Your task to perform on an android device: Go to Android settings Image 0: 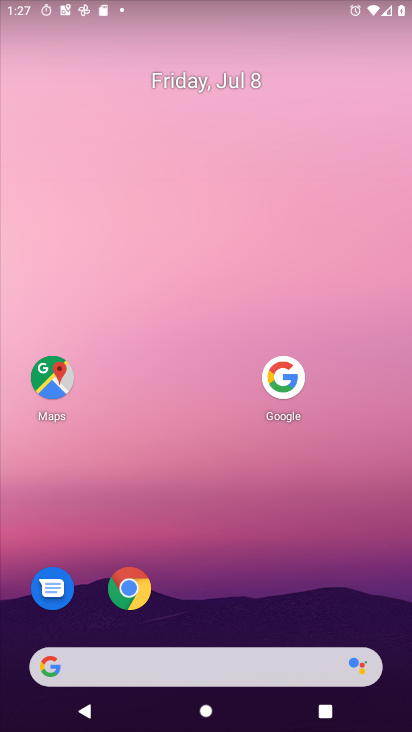
Step 0: drag from (165, 656) to (204, 20)
Your task to perform on an android device: Go to Android settings Image 1: 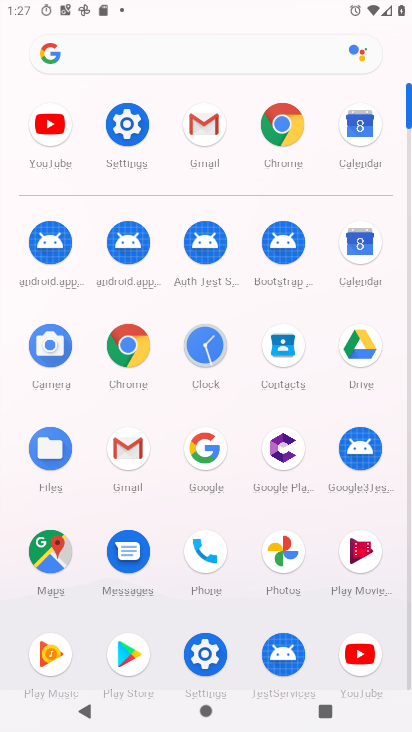
Step 1: click (127, 130)
Your task to perform on an android device: Go to Android settings Image 2: 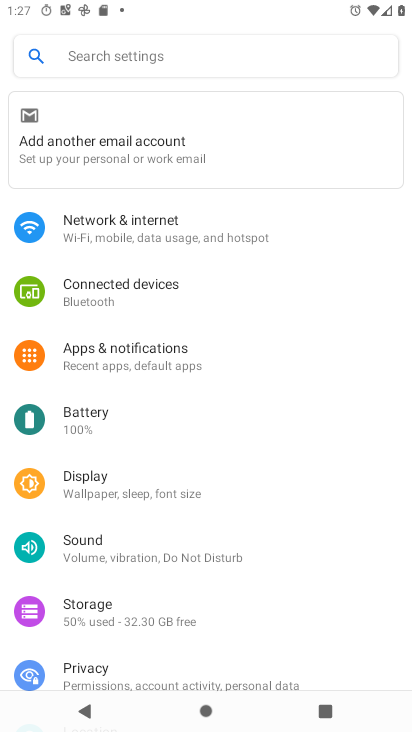
Step 2: task complete